Your task to perform on an android device: When is my next appointment? Image 0: 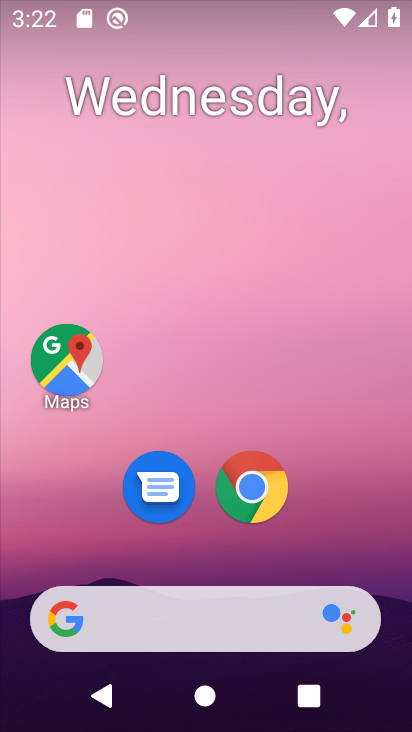
Step 0: drag from (332, 527) to (261, 65)
Your task to perform on an android device: When is my next appointment? Image 1: 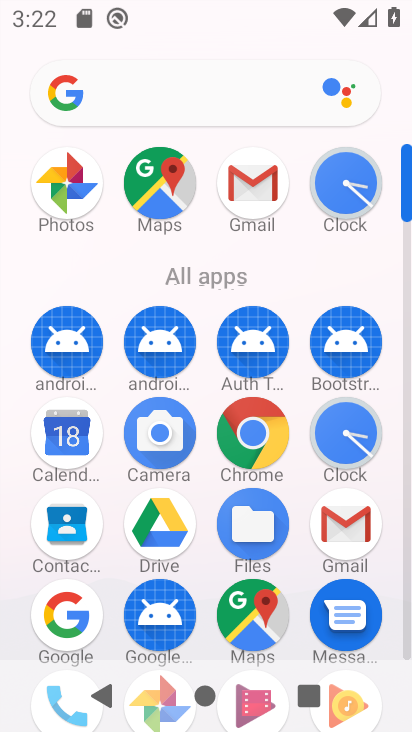
Step 1: click (66, 436)
Your task to perform on an android device: When is my next appointment? Image 2: 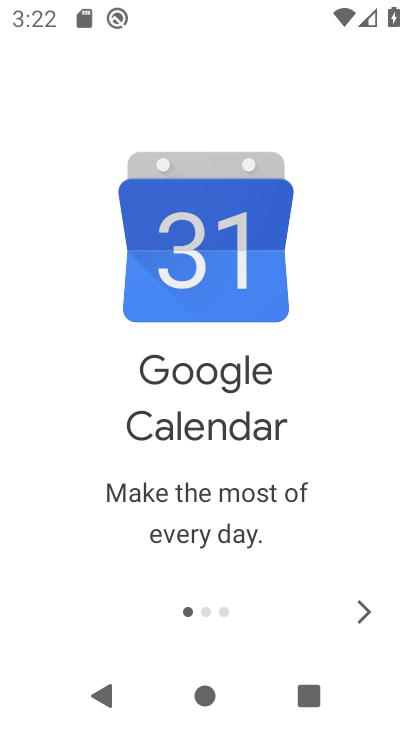
Step 2: click (363, 609)
Your task to perform on an android device: When is my next appointment? Image 3: 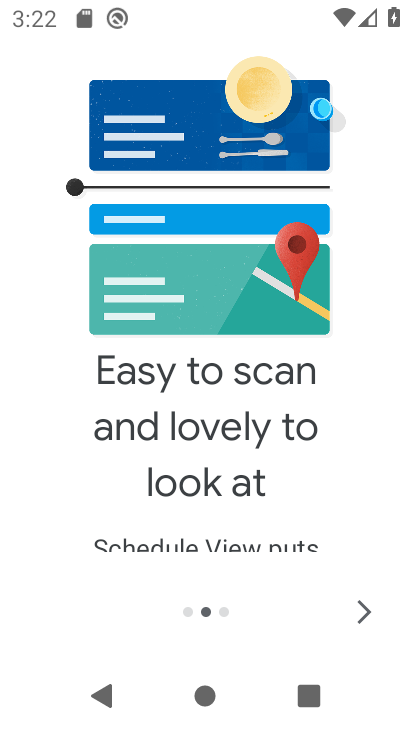
Step 3: click (369, 606)
Your task to perform on an android device: When is my next appointment? Image 4: 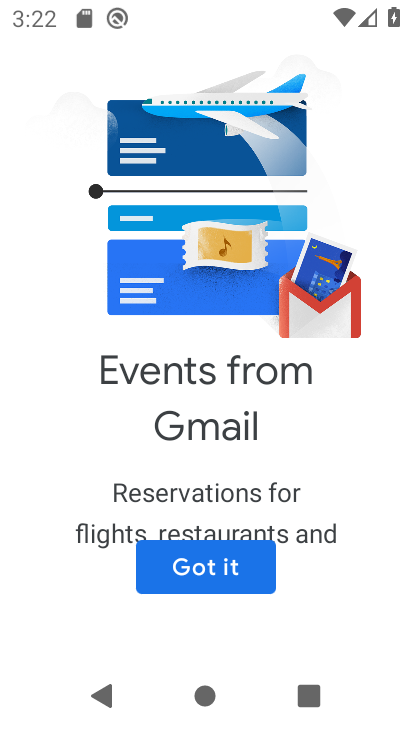
Step 4: click (226, 563)
Your task to perform on an android device: When is my next appointment? Image 5: 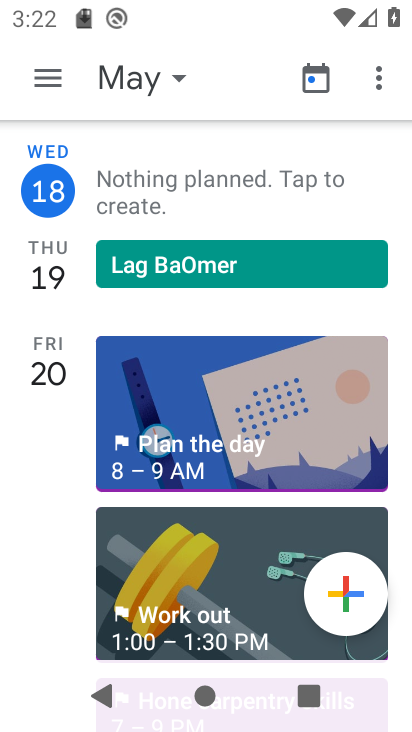
Step 5: click (183, 80)
Your task to perform on an android device: When is my next appointment? Image 6: 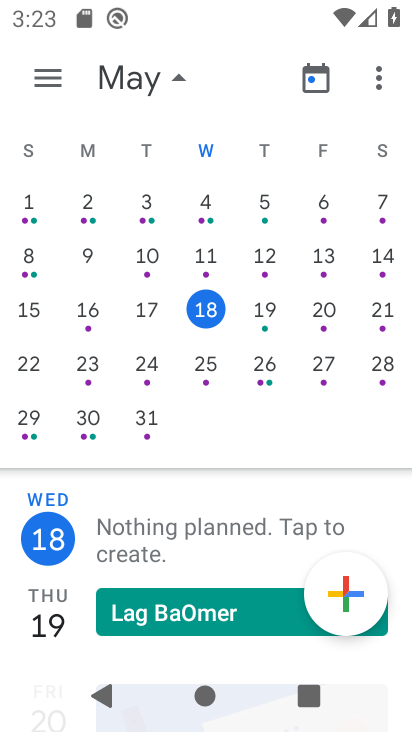
Step 6: click (336, 313)
Your task to perform on an android device: When is my next appointment? Image 7: 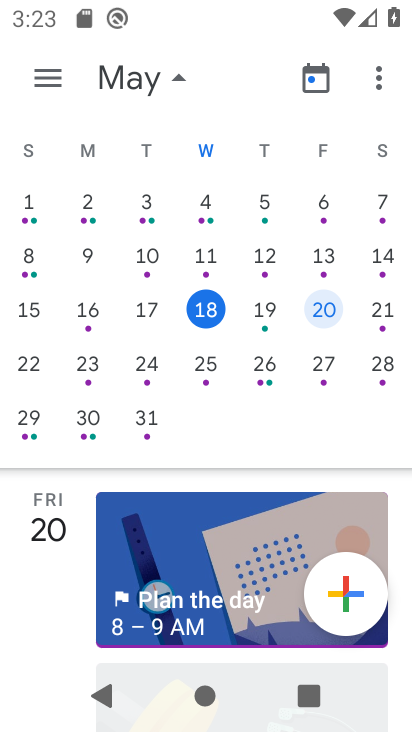
Step 7: click (37, 65)
Your task to perform on an android device: When is my next appointment? Image 8: 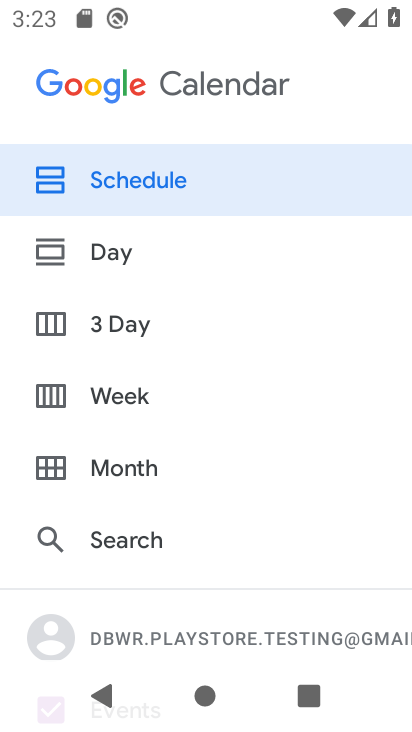
Step 8: click (134, 395)
Your task to perform on an android device: When is my next appointment? Image 9: 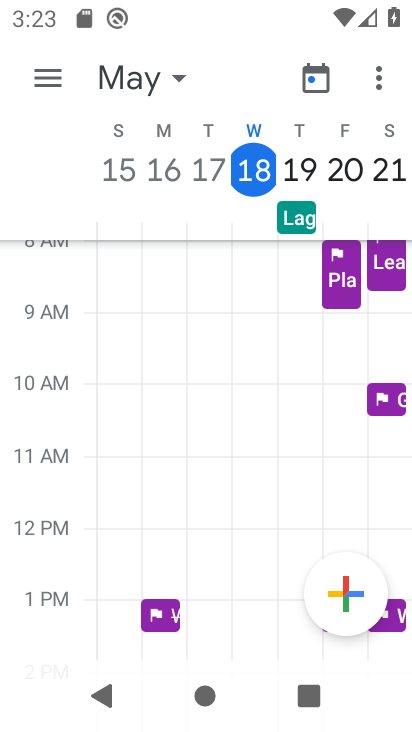
Step 9: task complete